Your task to perform on an android device: add a label to a message in the gmail app Image 0: 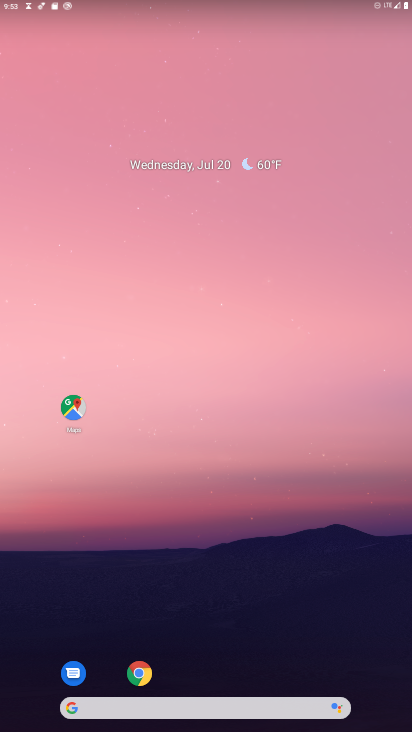
Step 0: drag from (189, 628) to (159, 83)
Your task to perform on an android device: add a label to a message in the gmail app Image 1: 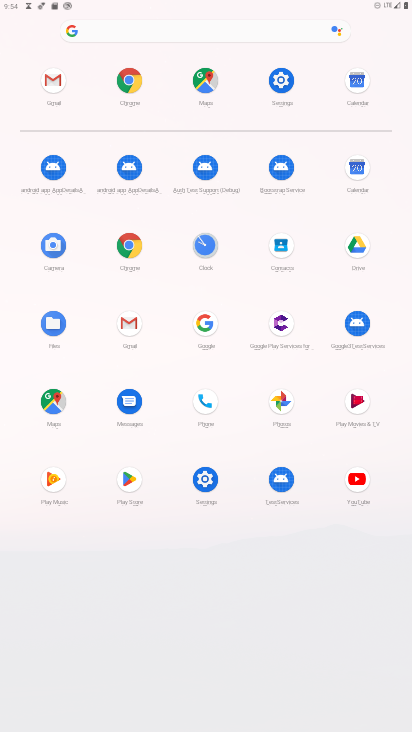
Step 1: click (55, 93)
Your task to perform on an android device: add a label to a message in the gmail app Image 2: 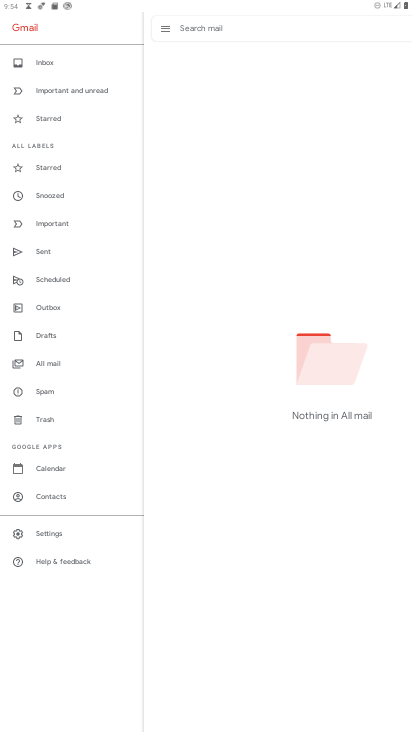
Step 2: task complete